Your task to perform on an android device: turn on the 12-hour format for clock Image 0: 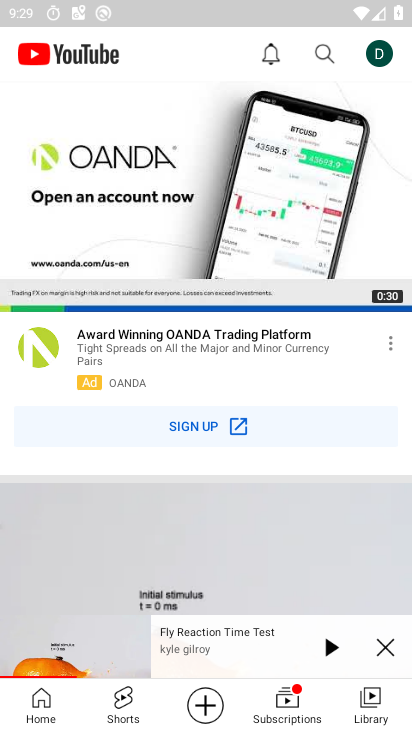
Step 0: drag from (315, 619) to (113, 80)
Your task to perform on an android device: turn on the 12-hour format for clock Image 1: 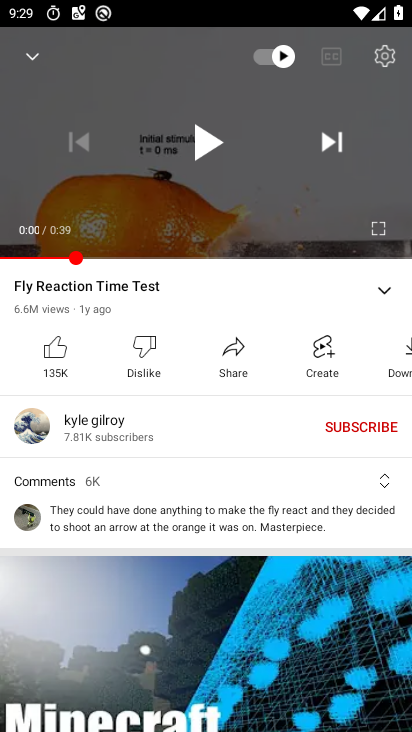
Step 1: press back button
Your task to perform on an android device: turn on the 12-hour format for clock Image 2: 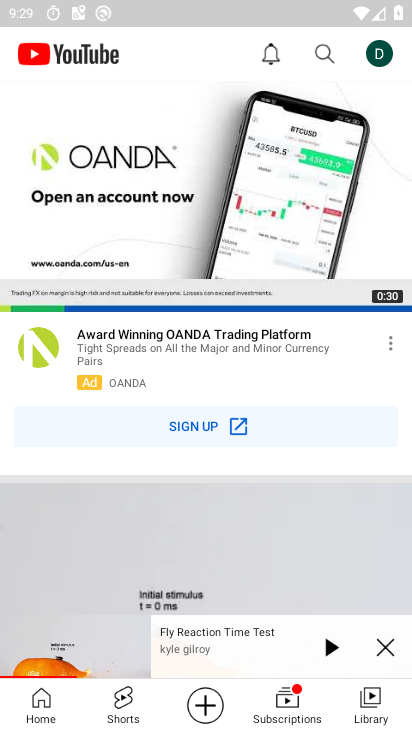
Step 2: click (384, 642)
Your task to perform on an android device: turn on the 12-hour format for clock Image 3: 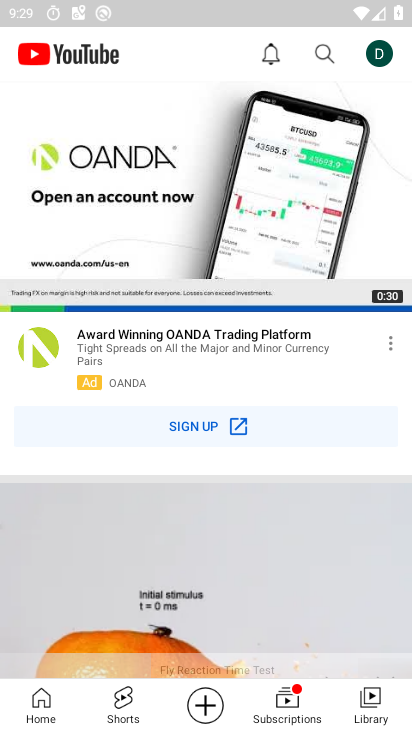
Step 3: click (384, 642)
Your task to perform on an android device: turn on the 12-hour format for clock Image 4: 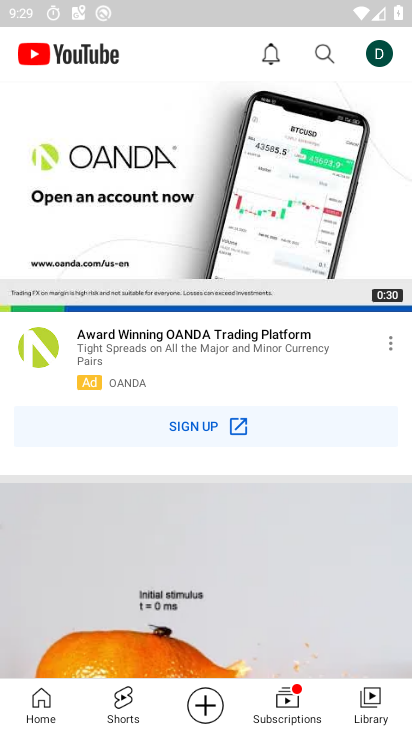
Step 4: press home button
Your task to perform on an android device: turn on the 12-hour format for clock Image 5: 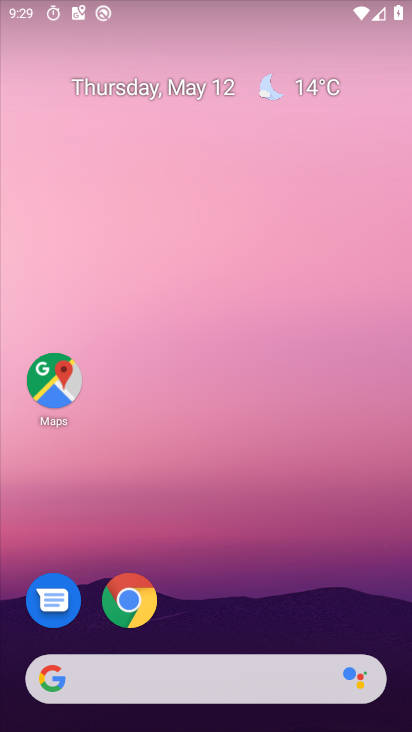
Step 5: drag from (273, 597) to (89, 14)
Your task to perform on an android device: turn on the 12-hour format for clock Image 6: 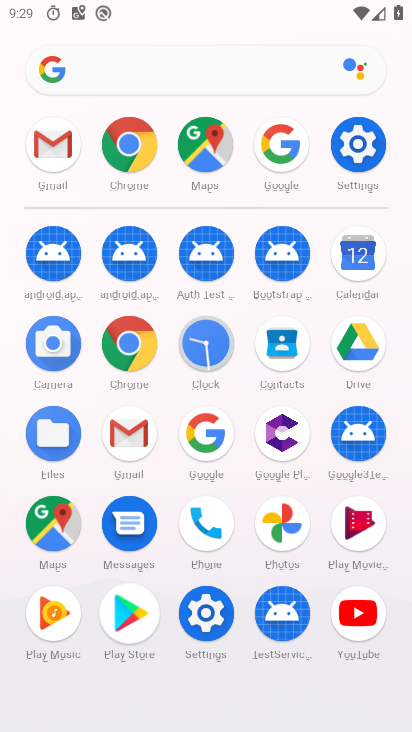
Step 6: click (195, 332)
Your task to perform on an android device: turn on the 12-hour format for clock Image 7: 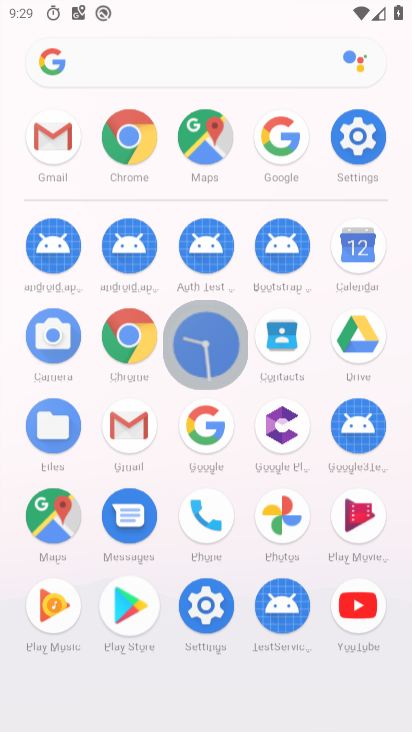
Step 7: click (197, 335)
Your task to perform on an android device: turn on the 12-hour format for clock Image 8: 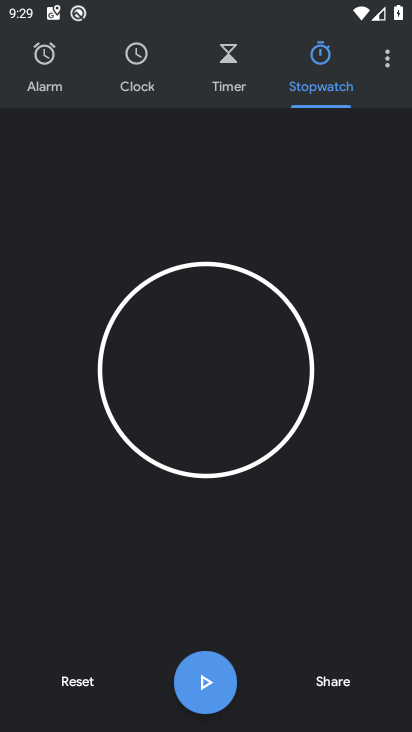
Step 8: click (199, 342)
Your task to perform on an android device: turn on the 12-hour format for clock Image 9: 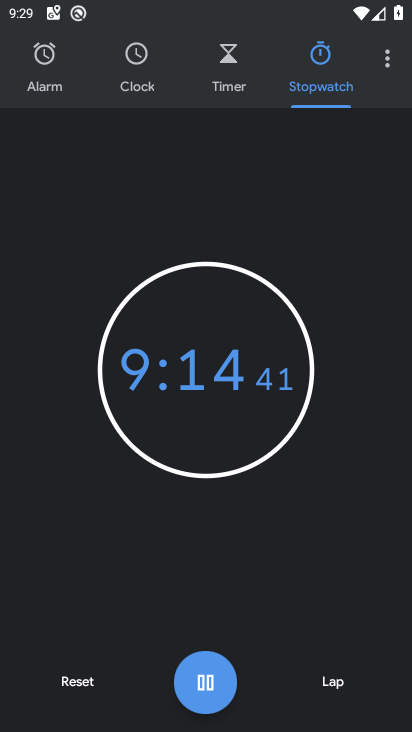
Step 9: click (288, 132)
Your task to perform on an android device: turn on the 12-hour format for clock Image 10: 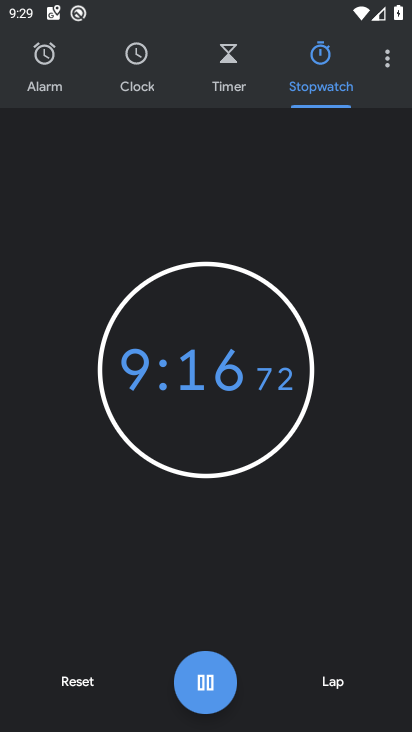
Step 10: click (206, 681)
Your task to perform on an android device: turn on the 12-hour format for clock Image 11: 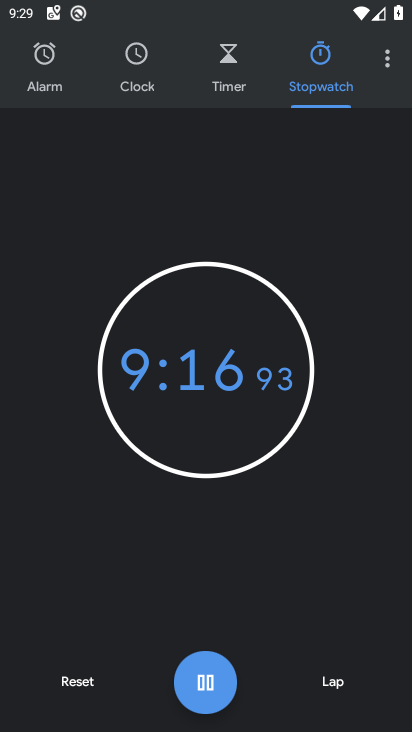
Step 11: click (209, 679)
Your task to perform on an android device: turn on the 12-hour format for clock Image 12: 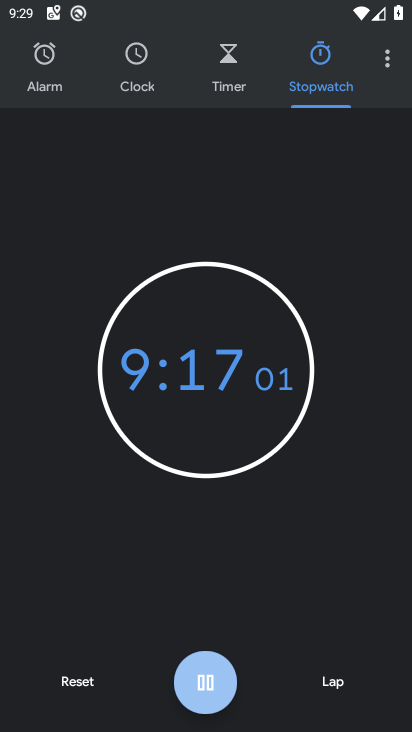
Step 12: click (208, 678)
Your task to perform on an android device: turn on the 12-hour format for clock Image 13: 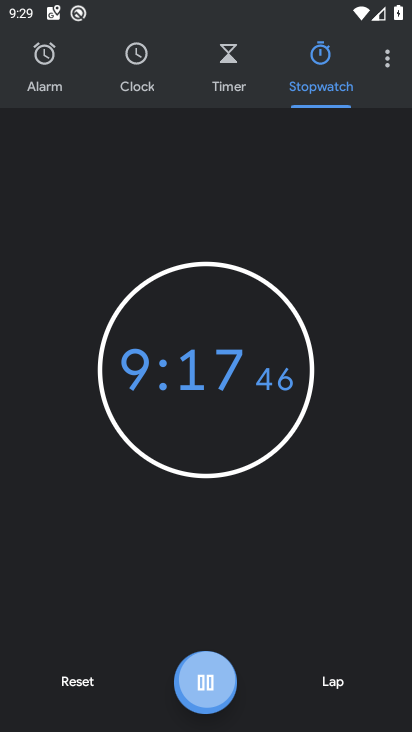
Step 13: click (208, 678)
Your task to perform on an android device: turn on the 12-hour format for clock Image 14: 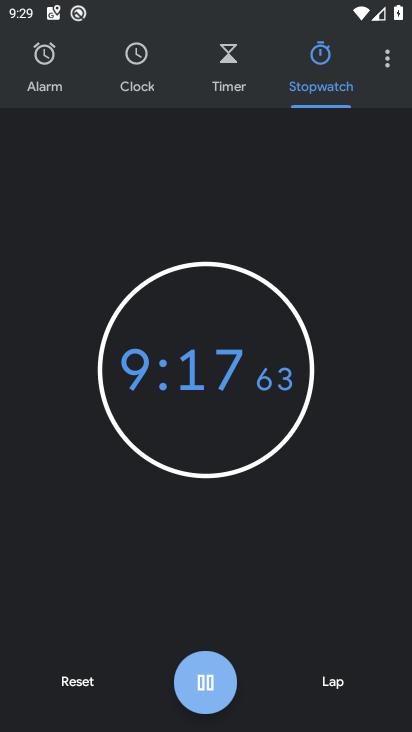
Step 14: click (207, 679)
Your task to perform on an android device: turn on the 12-hour format for clock Image 15: 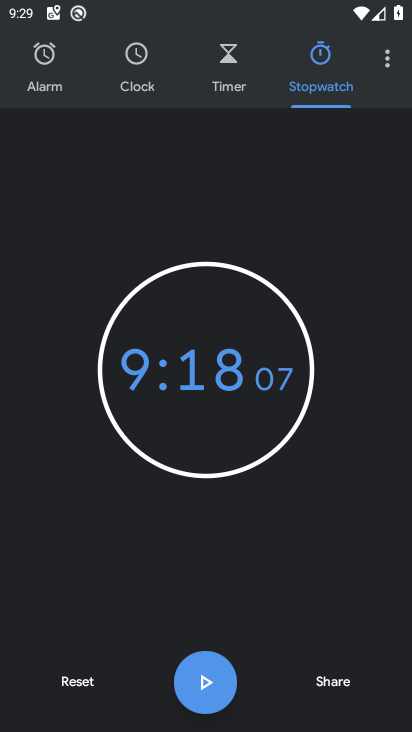
Step 15: click (389, 58)
Your task to perform on an android device: turn on the 12-hour format for clock Image 16: 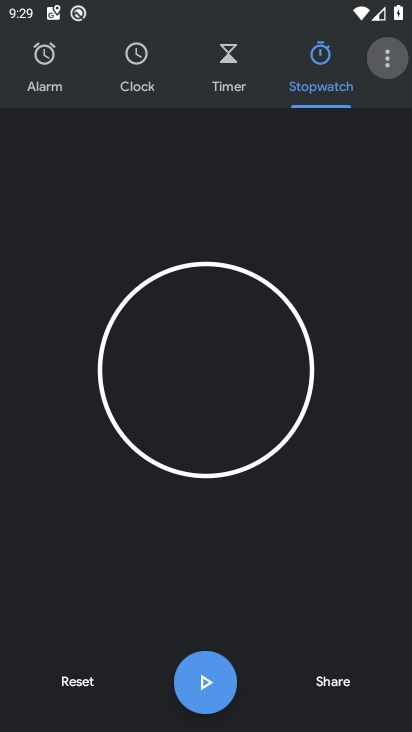
Step 16: click (389, 58)
Your task to perform on an android device: turn on the 12-hour format for clock Image 17: 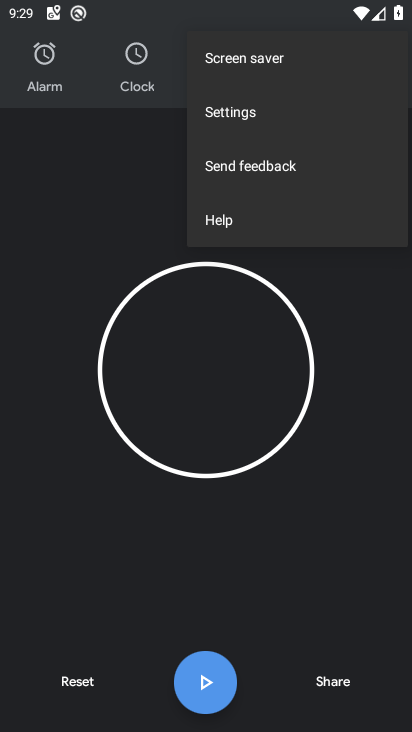
Step 17: click (210, 100)
Your task to perform on an android device: turn on the 12-hour format for clock Image 18: 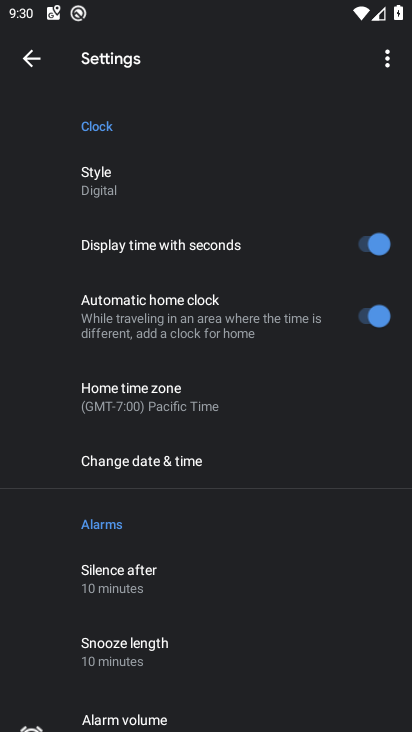
Step 18: click (141, 455)
Your task to perform on an android device: turn on the 12-hour format for clock Image 19: 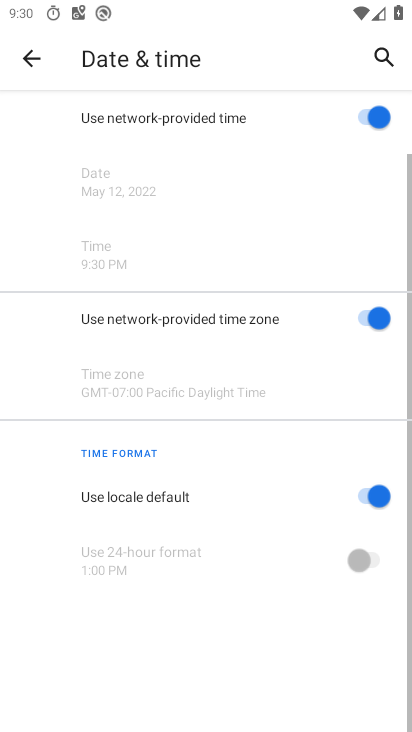
Step 19: task complete